Your task to perform on an android device: open chrome privacy settings Image 0: 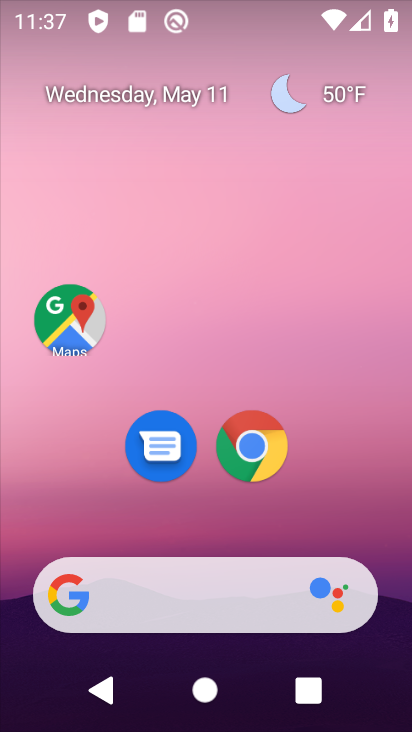
Step 0: click (274, 457)
Your task to perform on an android device: open chrome privacy settings Image 1: 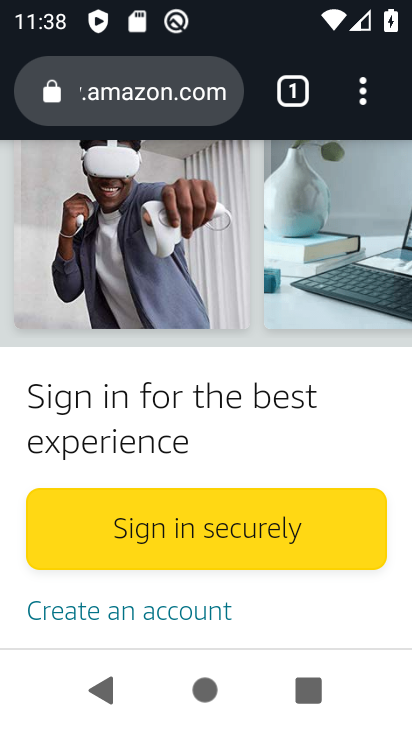
Step 1: click (368, 83)
Your task to perform on an android device: open chrome privacy settings Image 2: 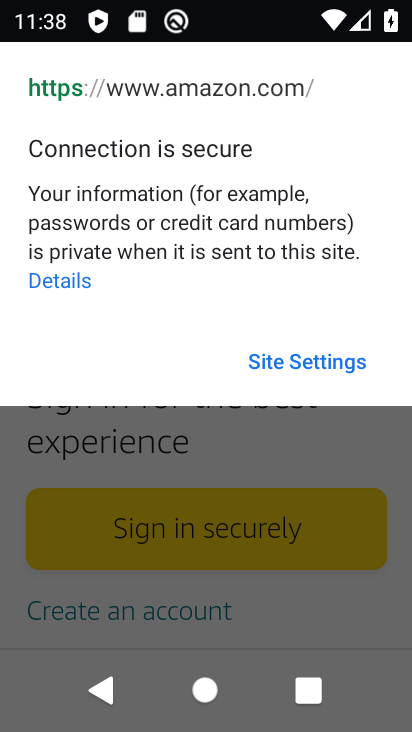
Step 2: press back button
Your task to perform on an android device: open chrome privacy settings Image 3: 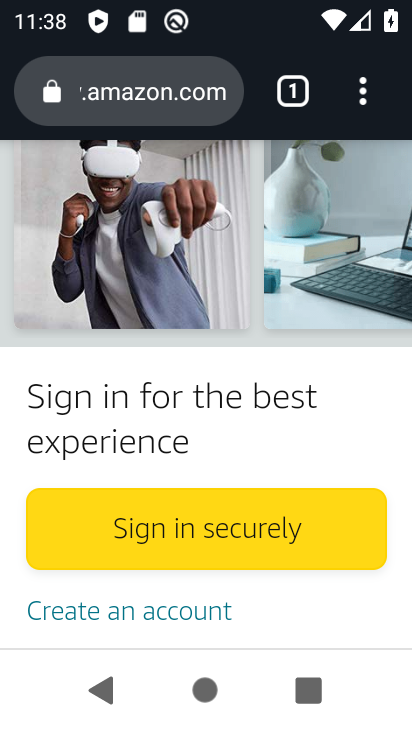
Step 3: click (364, 73)
Your task to perform on an android device: open chrome privacy settings Image 4: 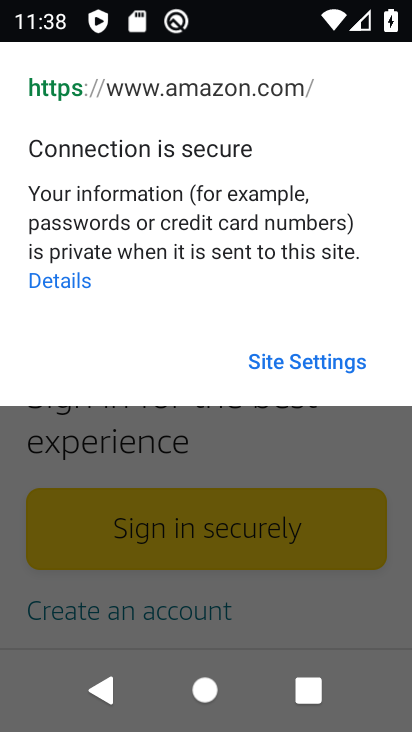
Step 4: press back button
Your task to perform on an android device: open chrome privacy settings Image 5: 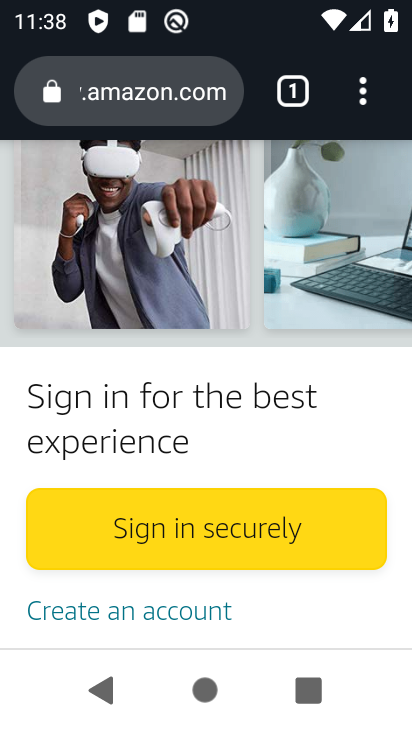
Step 5: click (365, 90)
Your task to perform on an android device: open chrome privacy settings Image 6: 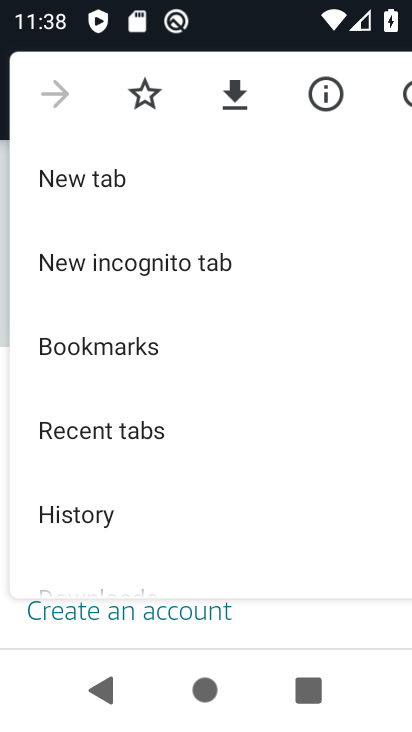
Step 6: drag from (283, 438) to (264, 148)
Your task to perform on an android device: open chrome privacy settings Image 7: 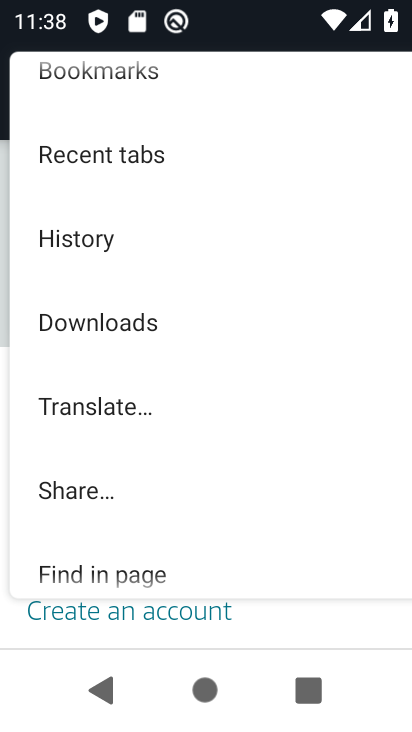
Step 7: drag from (220, 490) to (248, 216)
Your task to perform on an android device: open chrome privacy settings Image 8: 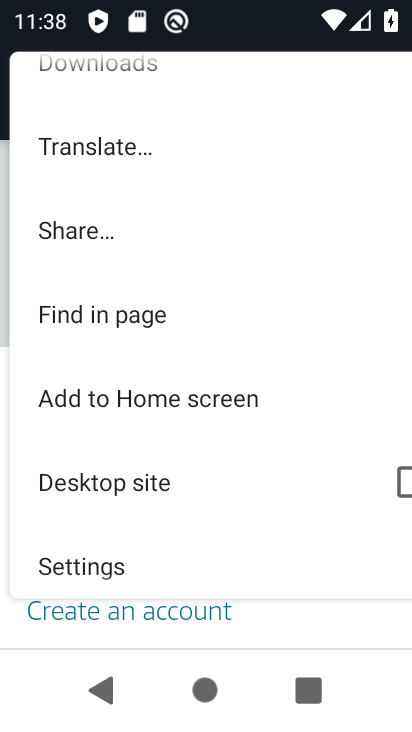
Step 8: drag from (205, 527) to (279, 197)
Your task to perform on an android device: open chrome privacy settings Image 9: 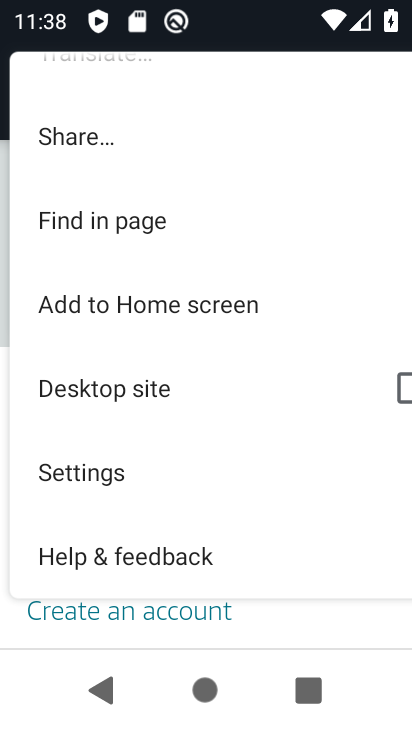
Step 9: click (92, 464)
Your task to perform on an android device: open chrome privacy settings Image 10: 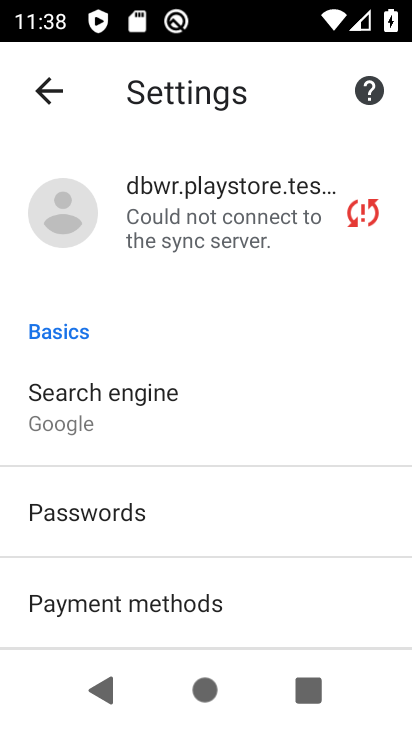
Step 10: drag from (143, 534) to (309, 26)
Your task to perform on an android device: open chrome privacy settings Image 11: 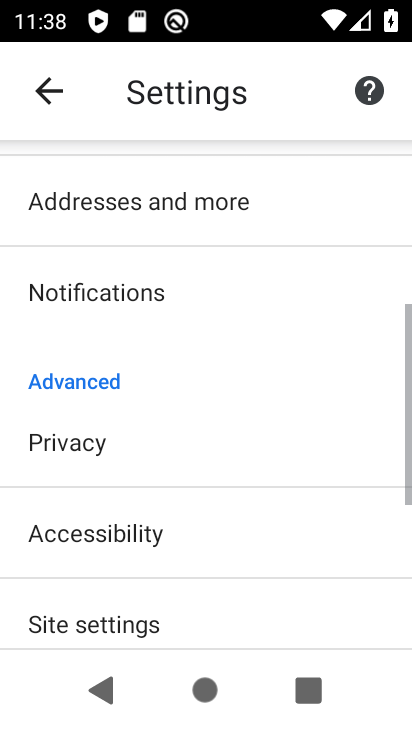
Step 11: drag from (400, 482) to (400, 530)
Your task to perform on an android device: open chrome privacy settings Image 12: 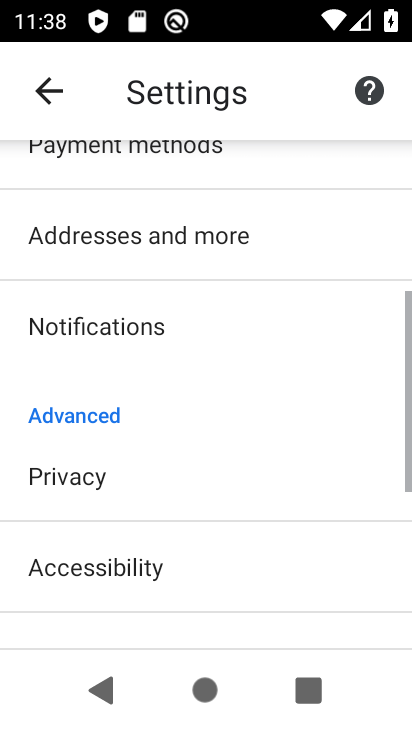
Step 12: click (296, 451)
Your task to perform on an android device: open chrome privacy settings Image 13: 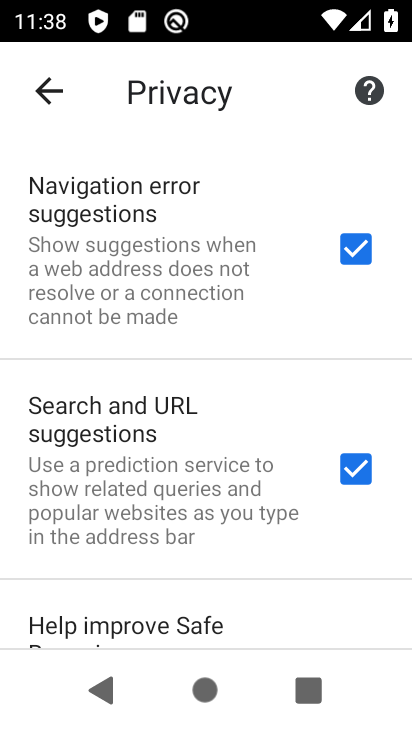
Step 13: task complete